Your task to perform on an android device: Search for seafood restaurants on Google Maps Image 0: 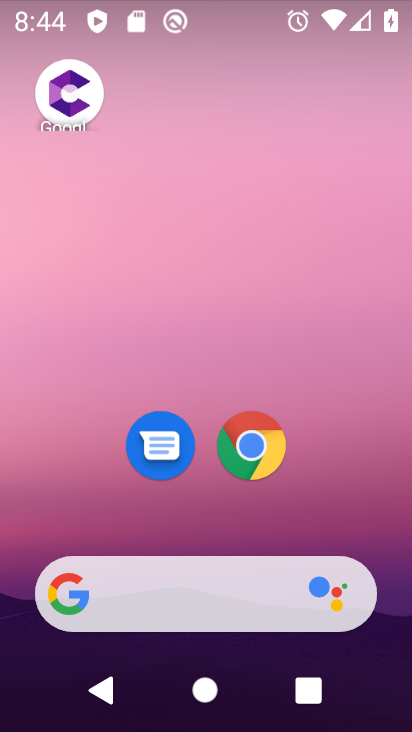
Step 0: drag from (31, 564) to (141, 206)
Your task to perform on an android device: Search for seafood restaurants on Google Maps Image 1: 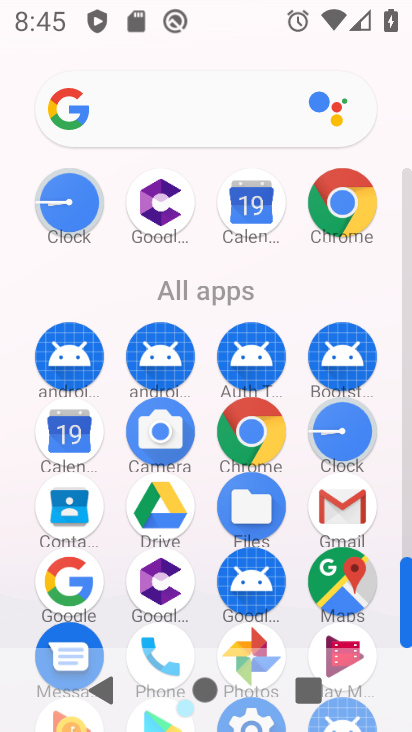
Step 1: drag from (49, 614) to (145, 287)
Your task to perform on an android device: Search for seafood restaurants on Google Maps Image 2: 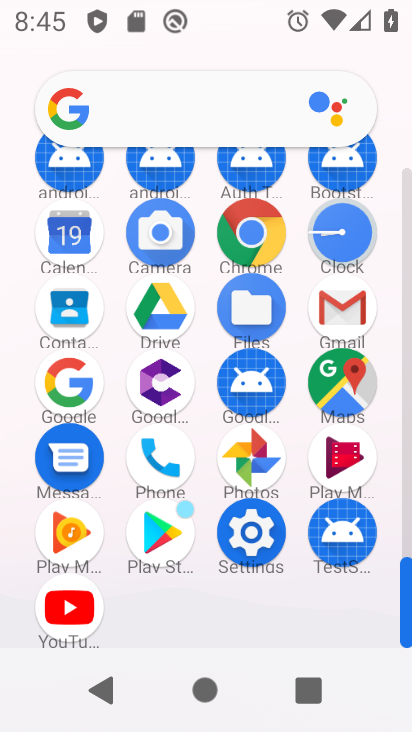
Step 2: click (328, 392)
Your task to perform on an android device: Search for seafood restaurants on Google Maps Image 3: 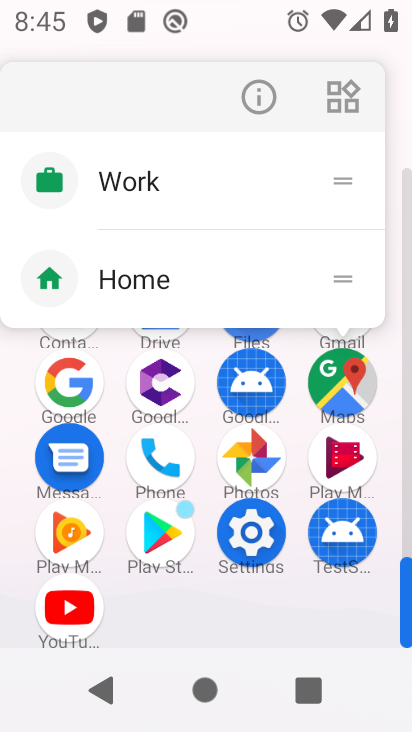
Step 3: click (327, 389)
Your task to perform on an android device: Search for seafood restaurants on Google Maps Image 4: 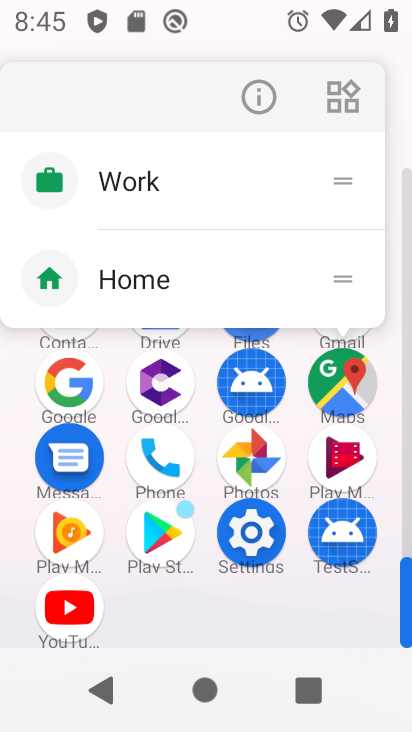
Step 4: click (326, 389)
Your task to perform on an android device: Search for seafood restaurants on Google Maps Image 5: 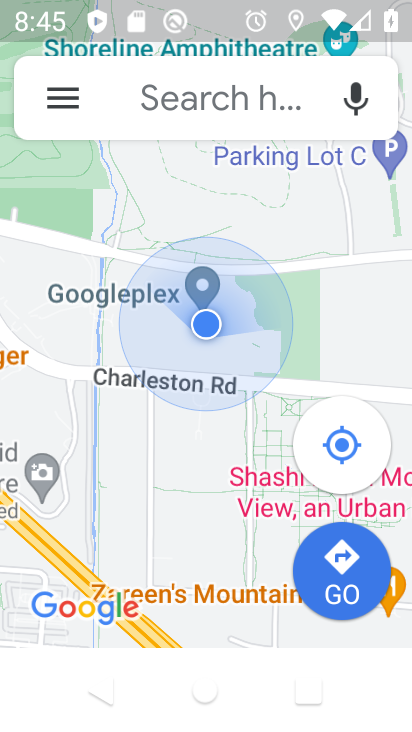
Step 5: click (165, 93)
Your task to perform on an android device: Search for seafood restaurants on Google Maps Image 6: 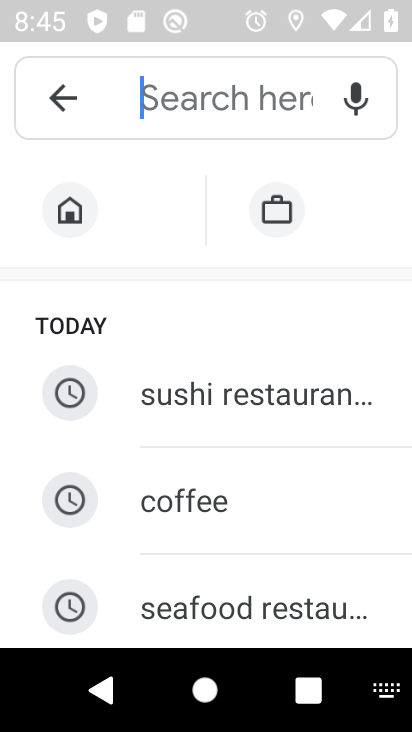
Step 6: click (194, 602)
Your task to perform on an android device: Search for seafood restaurants on Google Maps Image 7: 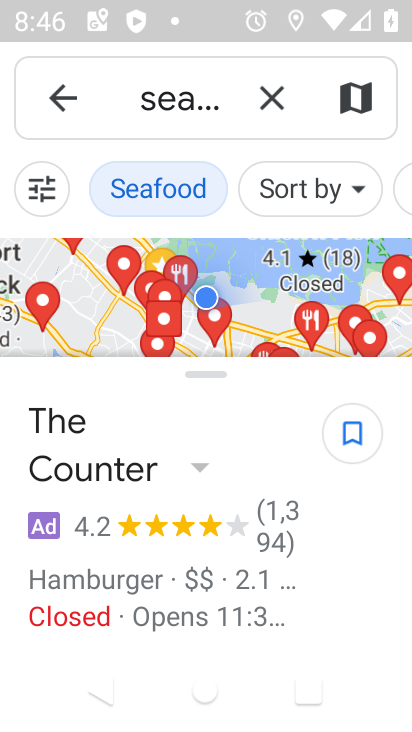
Step 7: task complete